Your task to perform on an android device: check storage Image 0: 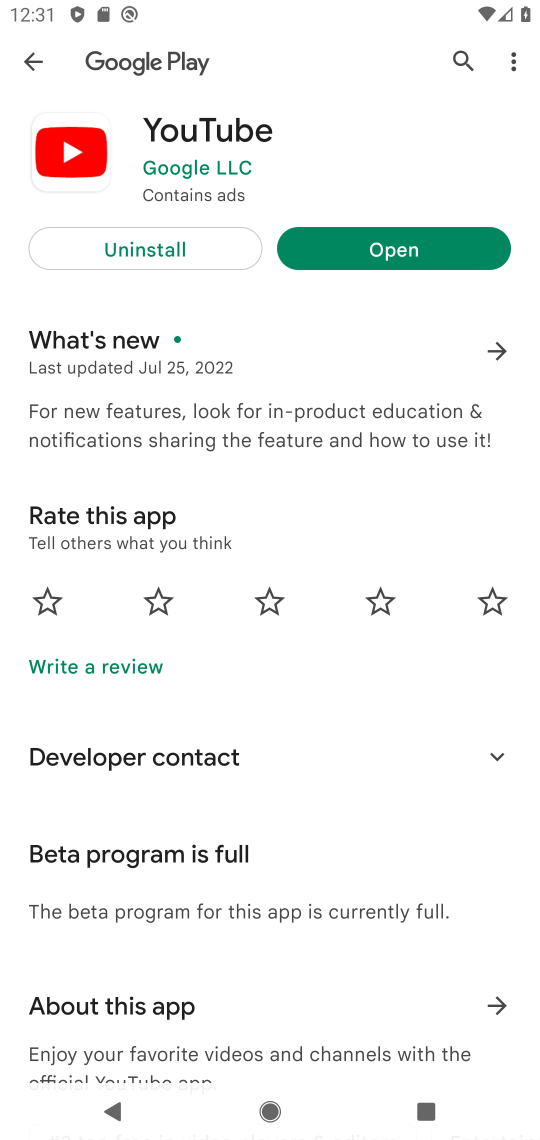
Step 0: press home button
Your task to perform on an android device: check storage Image 1: 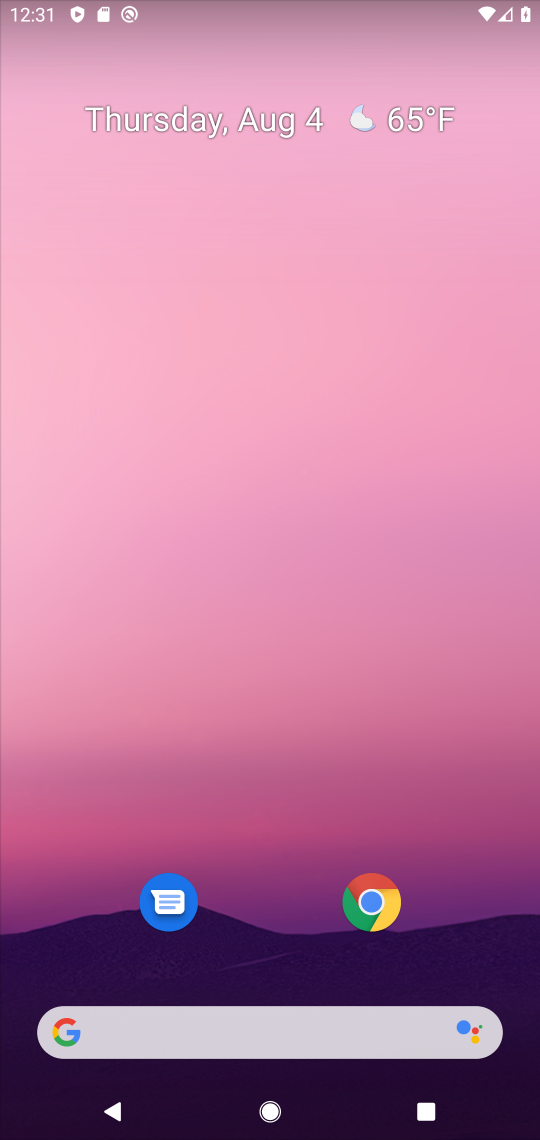
Step 1: drag from (491, 955) to (373, 234)
Your task to perform on an android device: check storage Image 2: 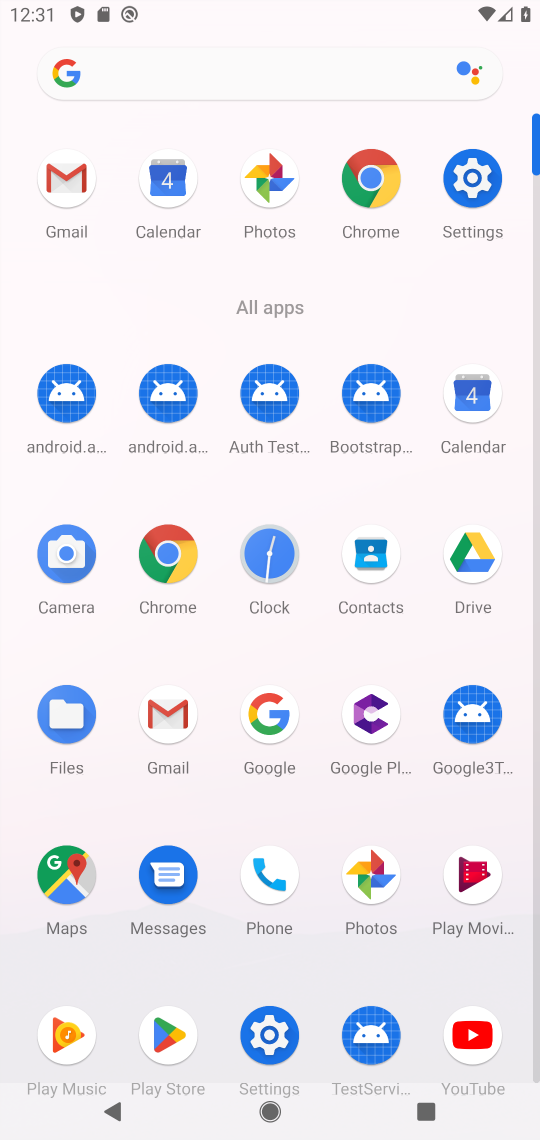
Step 2: click (270, 1036)
Your task to perform on an android device: check storage Image 3: 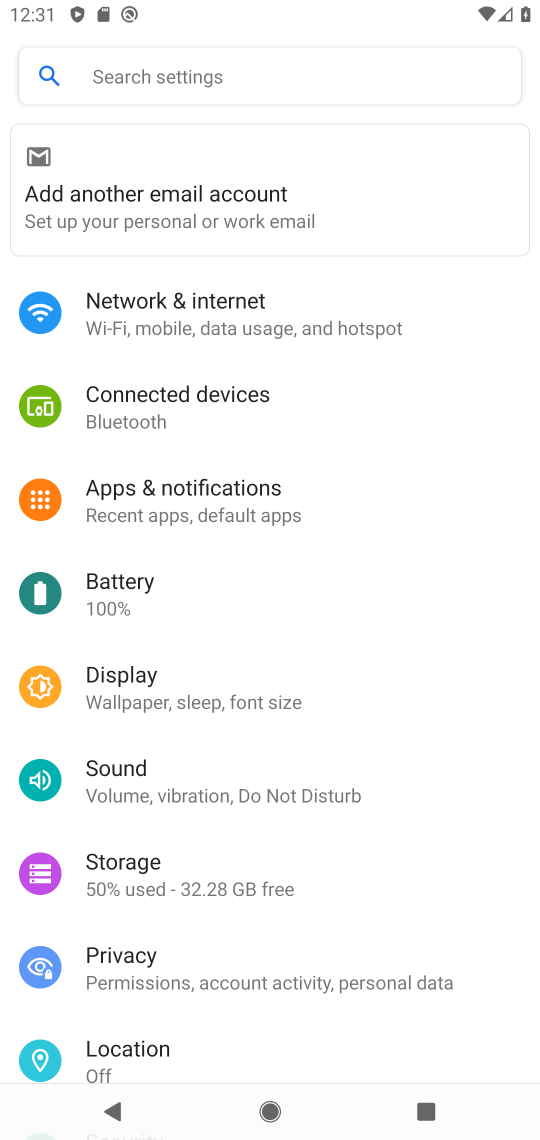
Step 3: click (113, 877)
Your task to perform on an android device: check storage Image 4: 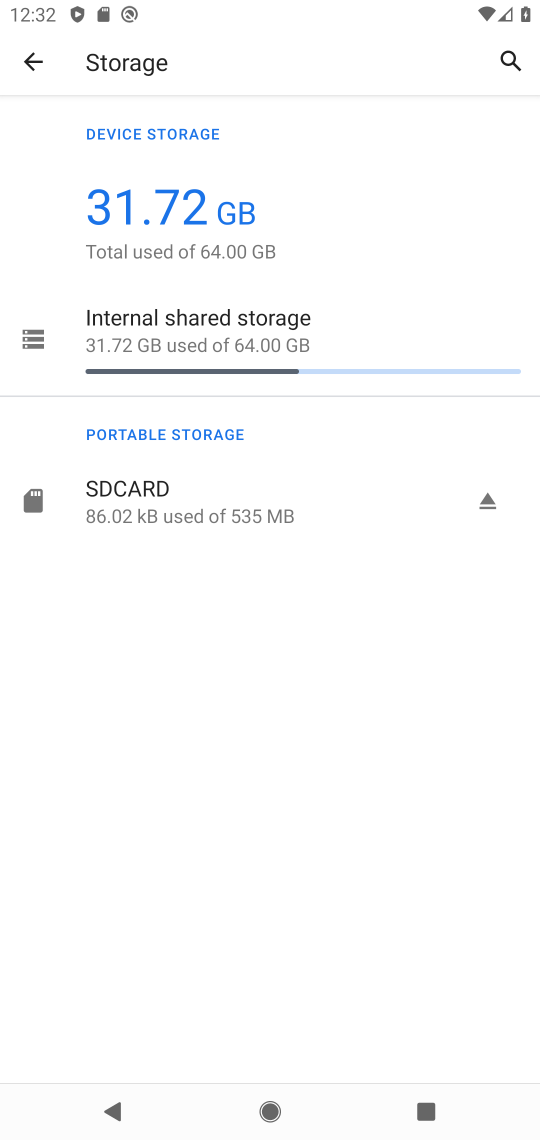
Step 4: task complete